Your task to perform on an android device: Check the news Image 0: 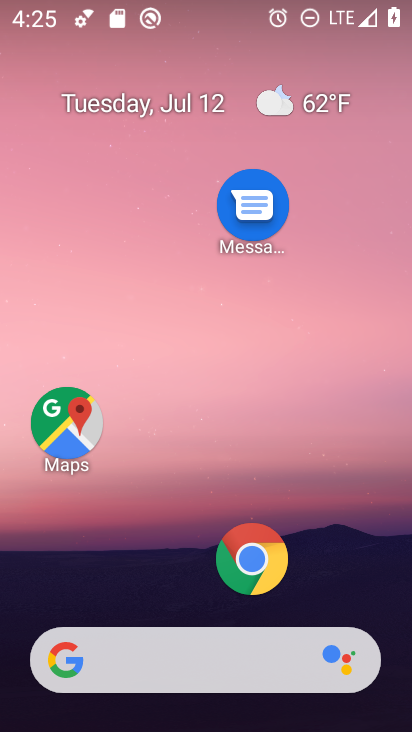
Step 0: click (166, 641)
Your task to perform on an android device: Check the news Image 1: 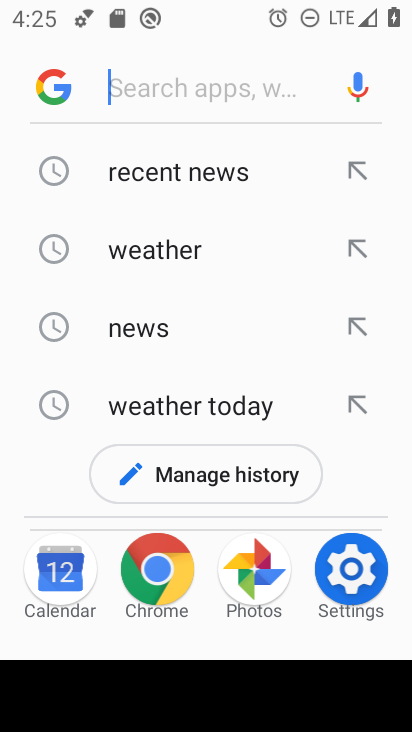
Step 1: click (122, 318)
Your task to perform on an android device: Check the news Image 2: 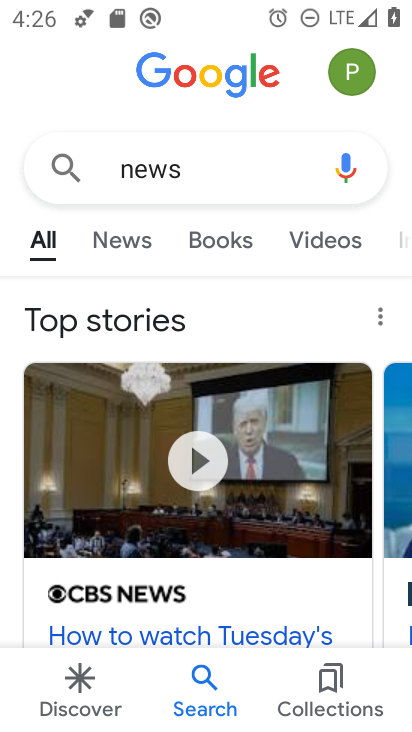
Step 2: task complete